Your task to perform on an android device: turn off location history Image 0: 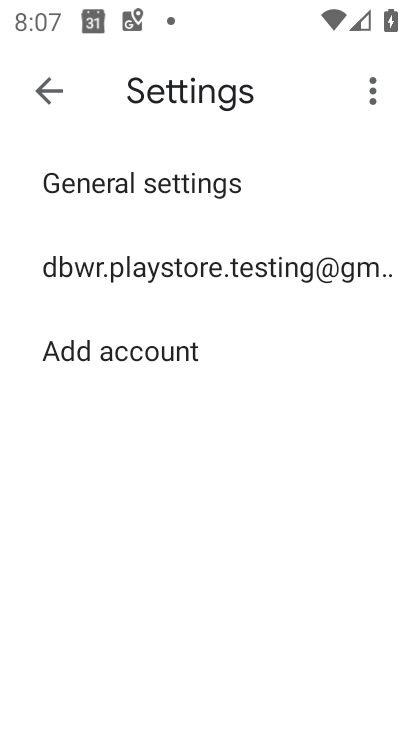
Step 0: click (60, 95)
Your task to perform on an android device: turn off location history Image 1: 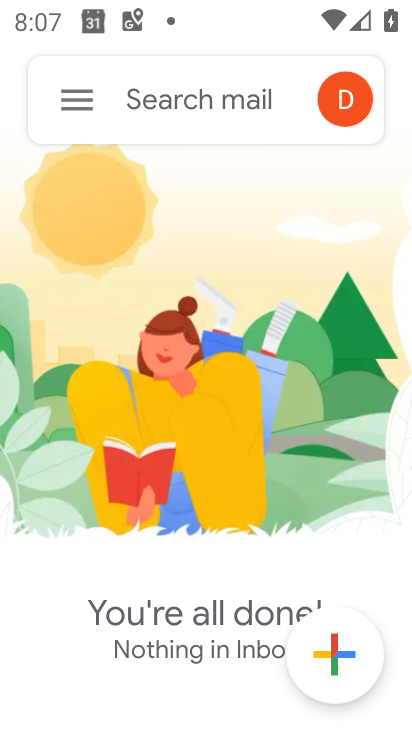
Step 1: press home button
Your task to perform on an android device: turn off location history Image 2: 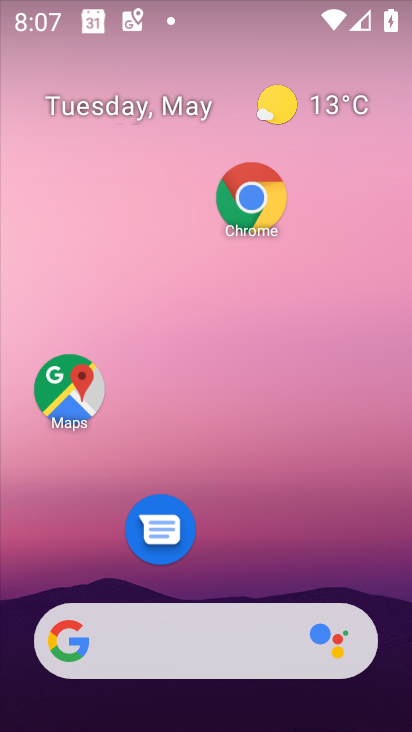
Step 2: drag from (360, 513) to (321, 0)
Your task to perform on an android device: turn off location history Image 3: 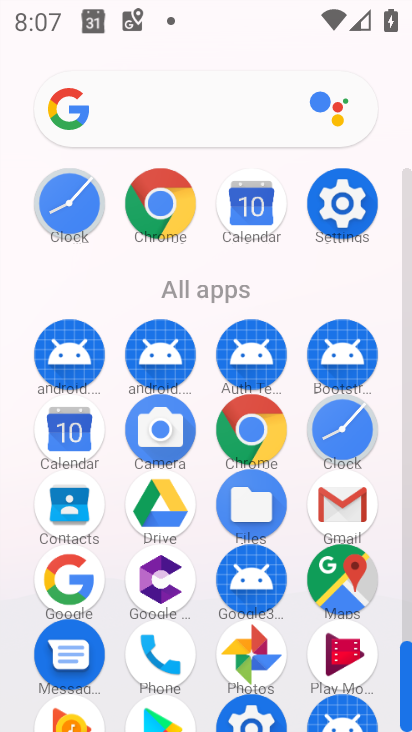
Step 3: click (347, 195)
Your task to perform on an android device: turn off location history Image 4: 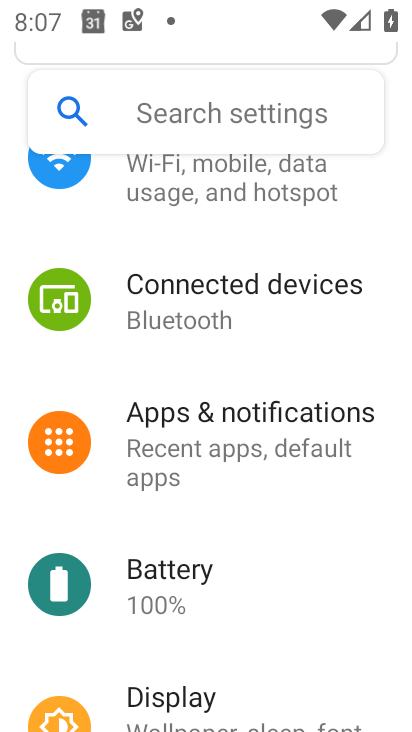
Step 4: drag from (273, 372) to (305, 479)
Your task to perform on an android device: turn off location history Image 5: 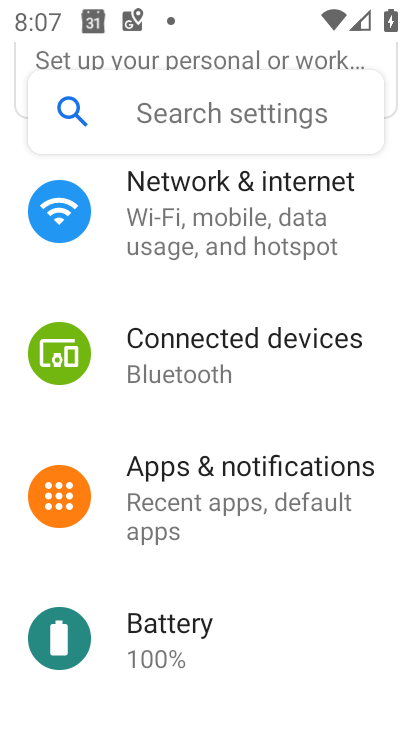
Step 5: drag from (267, 592) to (284, 12)
Your task to perform on an android device: turn off location history Image 6: 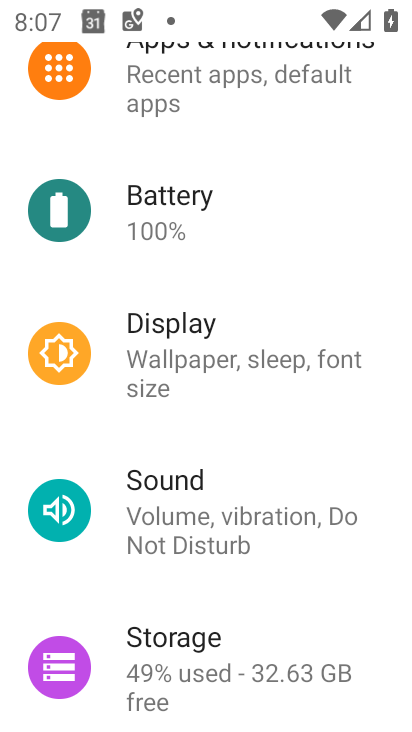
Step 6: drag from (260, 605) to (259, 81)
Your task to perform on an android device: turn off location history Image 7: 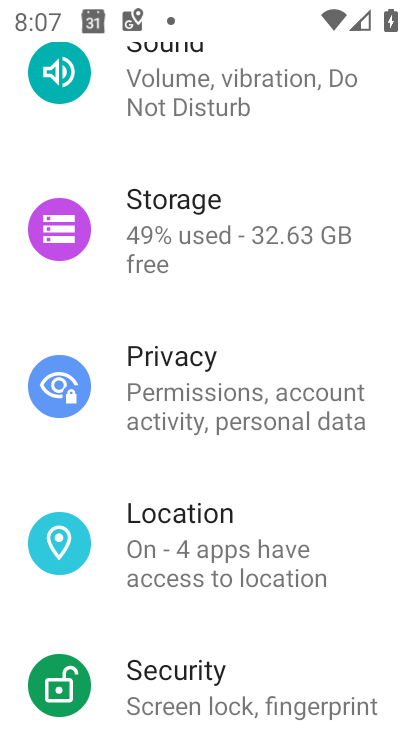
Step 7: drag from (198, 636) to (13, 21)
Your task to perform on an android device: turn off location history Image 8: 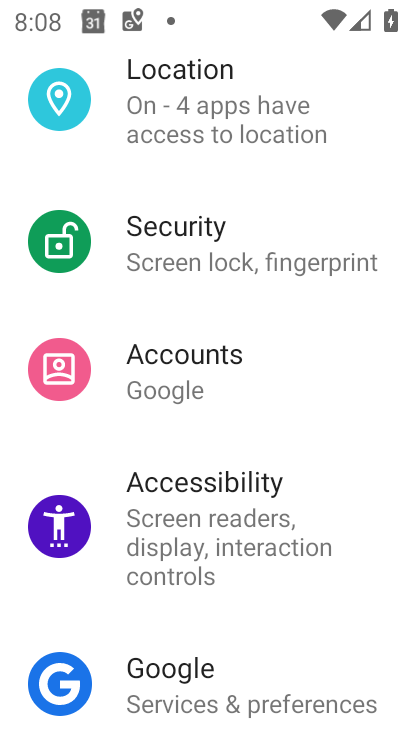
Step 8: drag from (232, 607) to (238, 159)
Your task to perform on an android device: turn off location history Image 9: 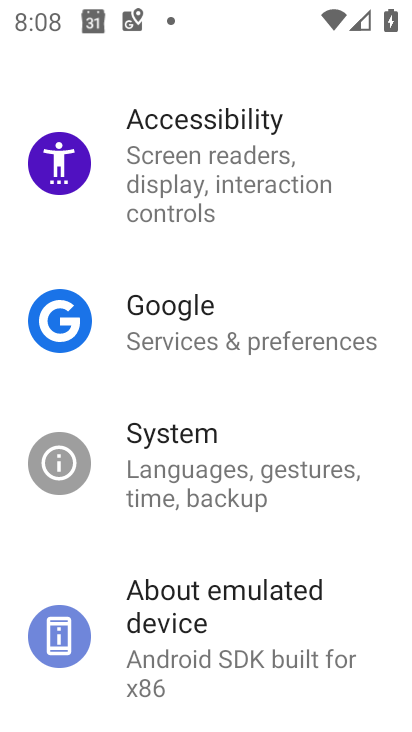
Step 9: drag from (239, 346) to (394, 666)
Your task to perform on an android device: turn off location history Image 10: 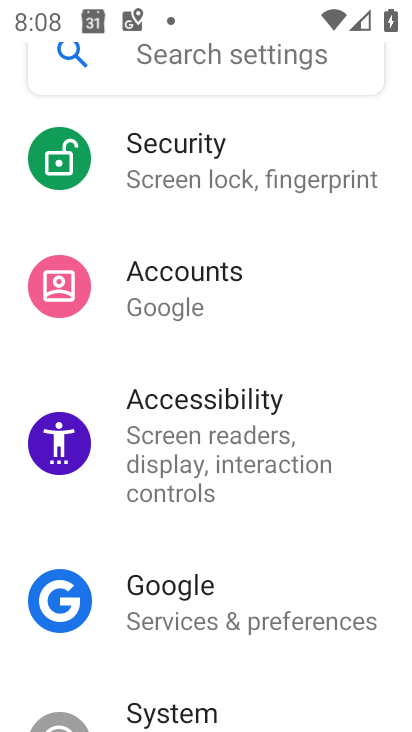
Step 10: drag from (290, 223) to (306, 311)
Your task to perform on an android device: turn off location history Image 11: 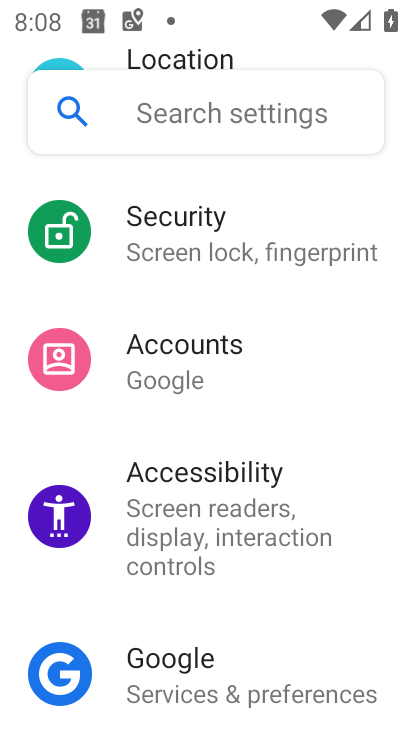
Step 11: click (198, 60)
Your task to perform on an android device: turn off location history Image 12: 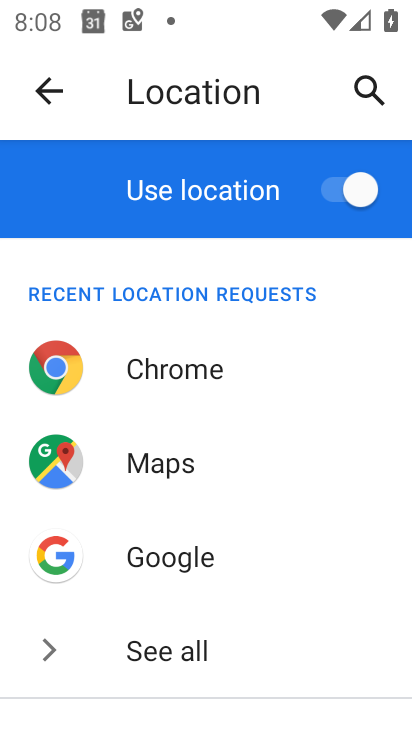
Step 12: drag from (199, 667) to (238, 293)
Your task to perform on an android device: turn off location history Image 13: 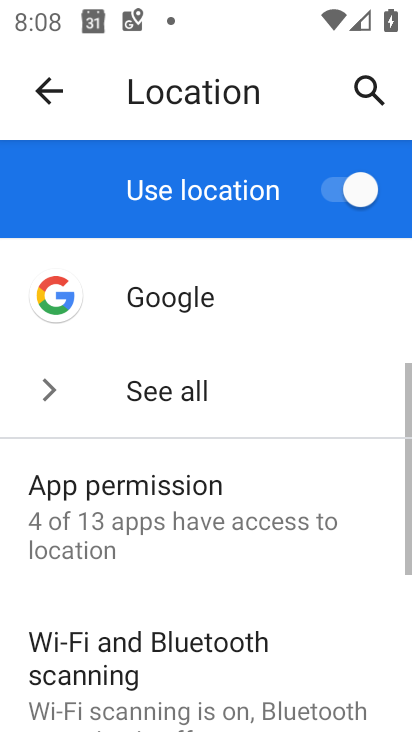
Step 13: drag from (236, 684) to (255, 212)
Your task to perform on an android device: turn off location history Image 14: 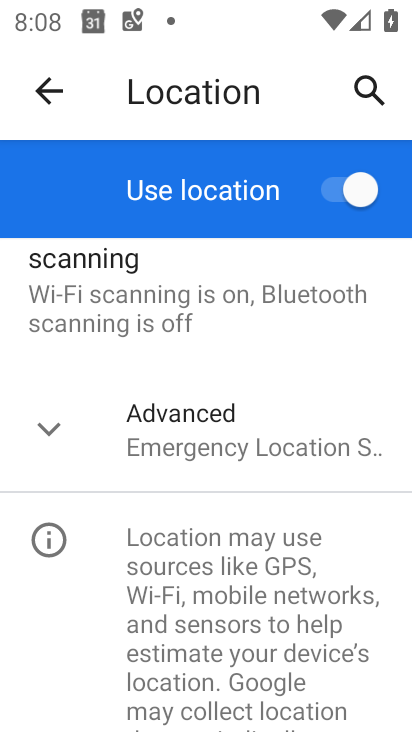
Step 14: click (142, 462)
Your task to perform on an android device: turn off location history Image 15: 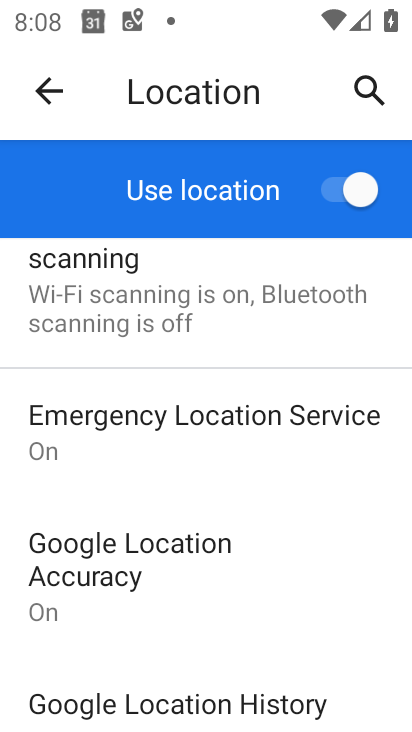
Step 15: drag from (159, 683) to (203, 239)
Your task to perform on an android device: turn off location history Image 16: 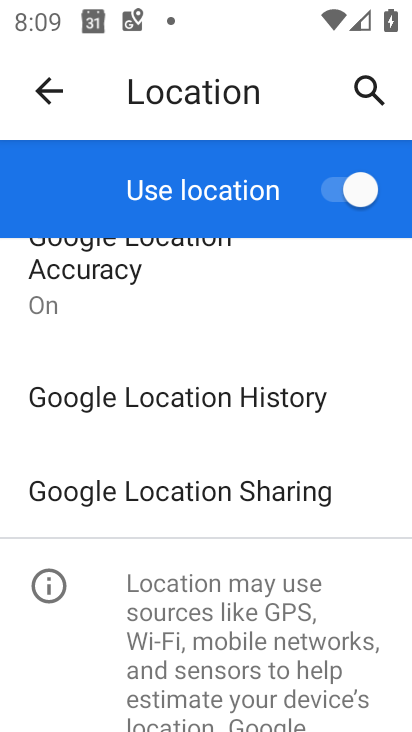
Step 16: click (178, 265)
Your task to perform on an android device: turn off location history Image 17: 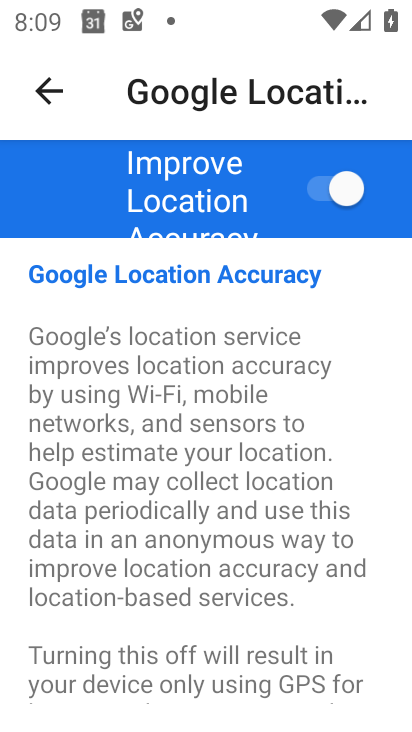
Step 17: click (62, 91)
Your task to perform on an android device: turn off location history Image 18: 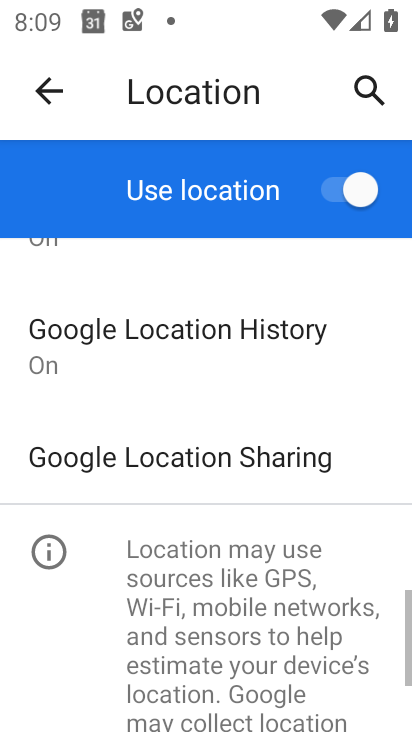
Step 18: click (125, 342)
Your task to perform on an android device: turn off location history Image 19: 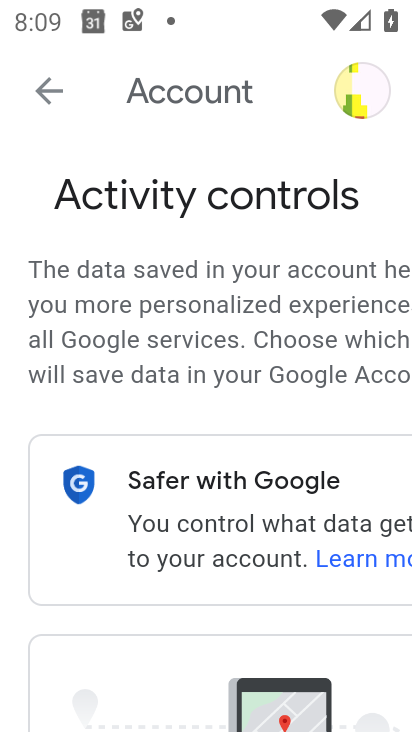
Step 19: task complete